Your task to perform on an android device: Google the capital of Colombia Image 0: 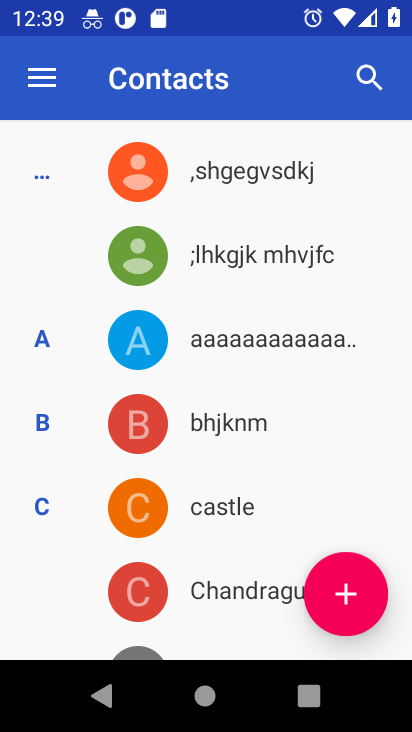
Step 0: press home button
Your task to perform on an android device: Google the capital of Colombia Image 1: 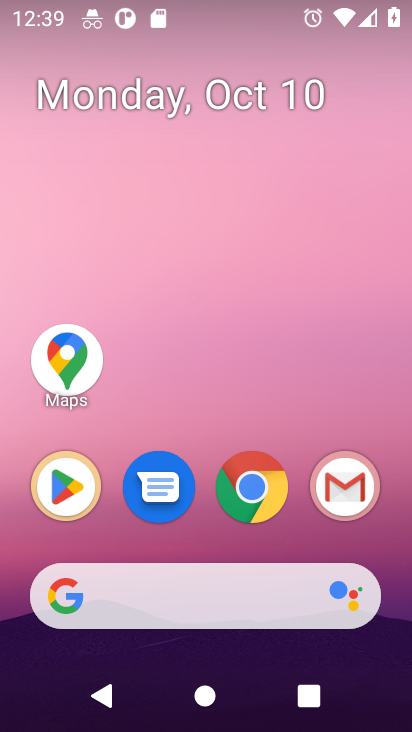
Step 1: click (248, 483)
Your task to perform on an android device: Google the capital of Colombia Image 2: 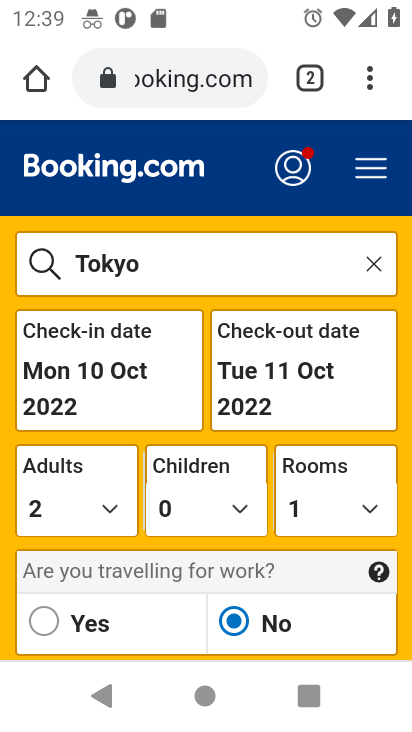
Step 2: click (202, 64)
Your task to perform on an android device: Google the capital of Colombia Image 3: 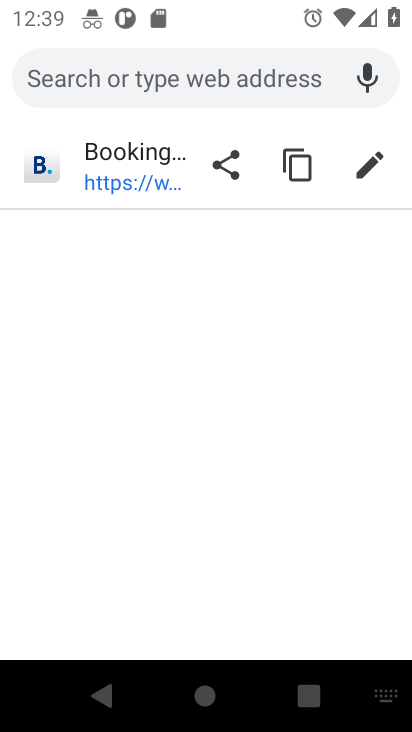
Step 3: type "capital of colombia"
Your task to perform on an android device: Google the capital of Colombia Image 4: 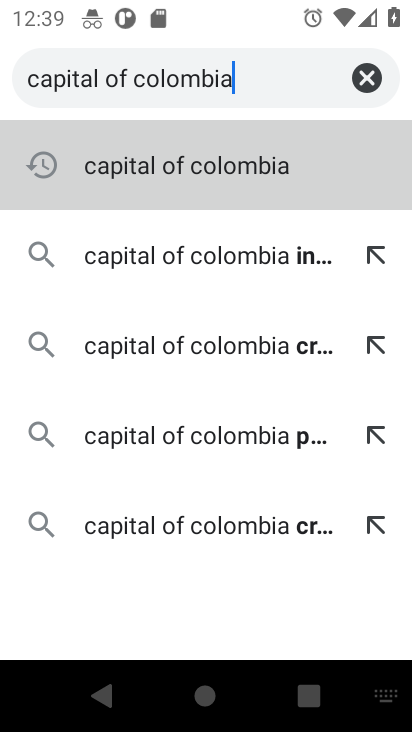
Step 4: press enter
Your task to perform on an android device: Google the capital of Colombia Image 5: 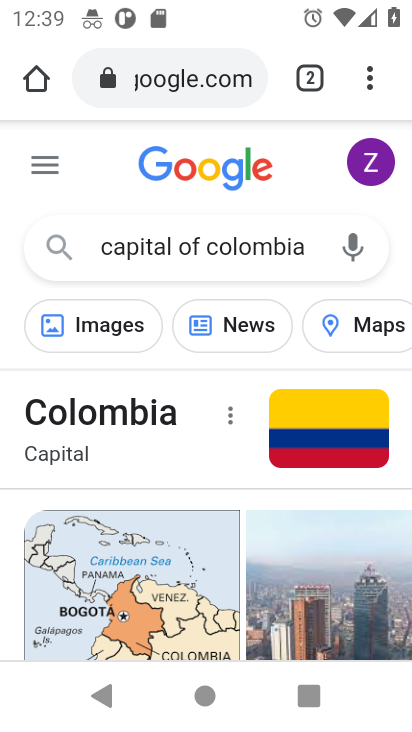
Step 5: drag from (182, 501) to (203, 154)
Your task to perform on an android device: Google the capital of Colombia Image 6: 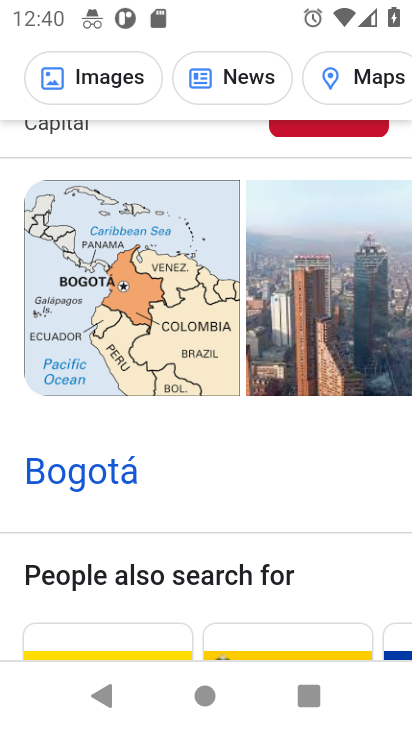
Step 6: drag from (262, 452) to (226, 463)
Your task to perform on an android device: Google the capital of Colombia Image 7: 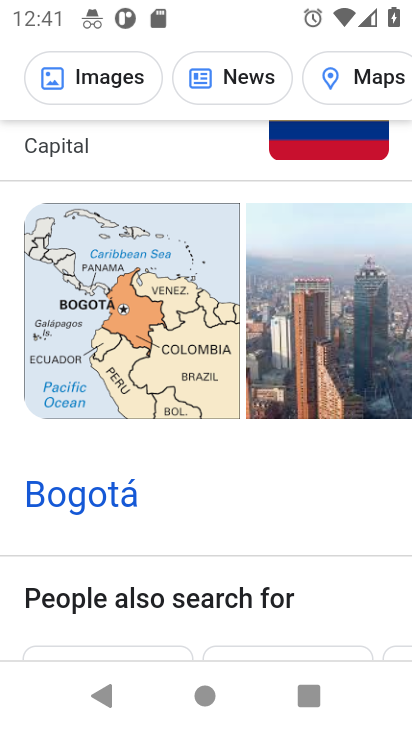
Step 7: drag from (217, 299) to (205, 395)
Your task to perform on an android device: Google the capital of Colombia Image 8: 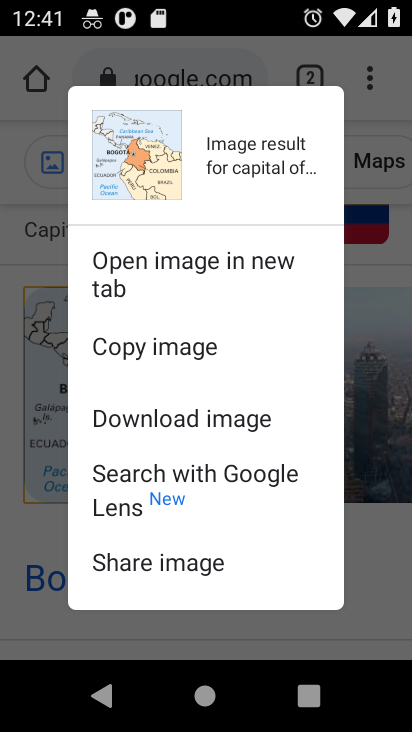
Step 8: click (385, 563)
Your task to perform on an android device: Google the capital of Colombia Image 9: 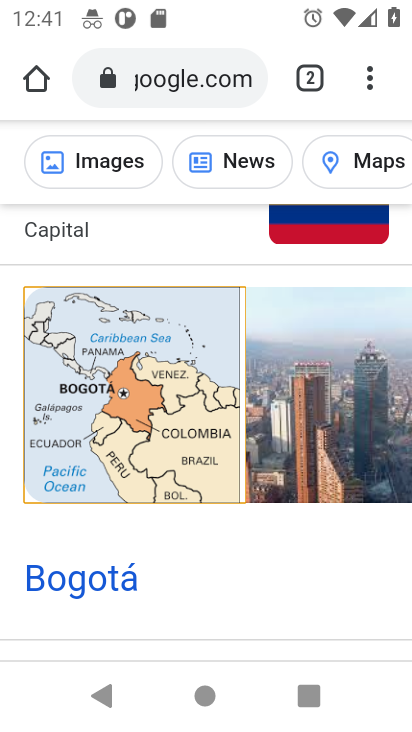
Step 9: task complete